Your task to perform on an android device: Open the calendar and show me this week's events? Image 0: 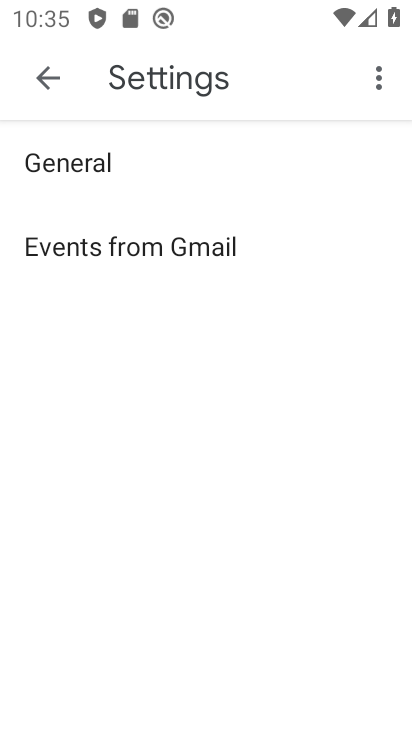
Step 0: press home button
Your task to perform on an android device: Open the calendar and show me this week's events? Image 1: 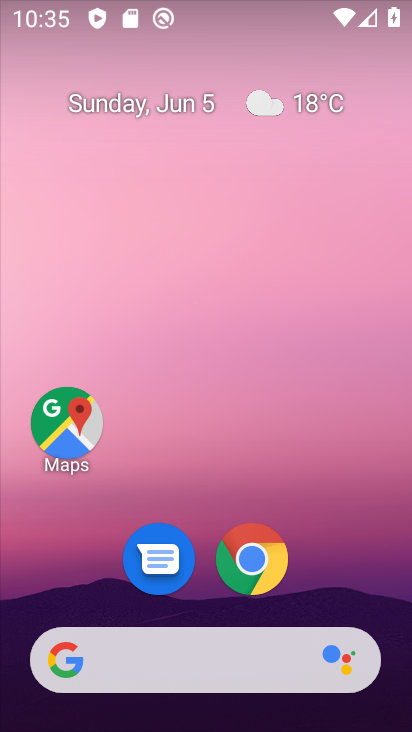
Step 1: drag from (357, 603) to (309, 239)
Your task to perform on an android device: Open the calendar and show me this week's events? Image 2: 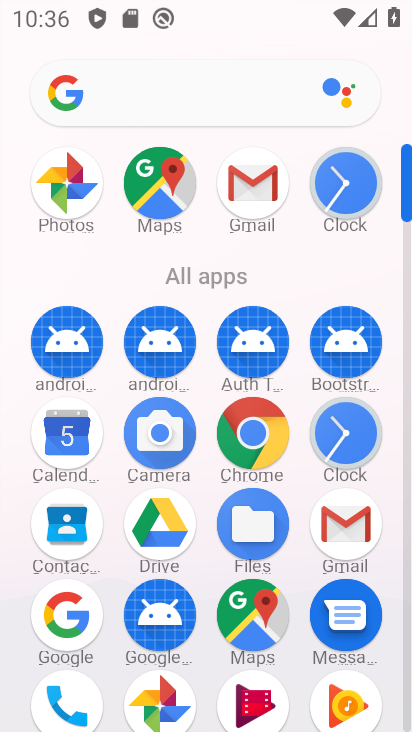
Step 2: click (80, 424)
Your task to perform on an android device: Open the calendar and show me this week's events? Image 3: 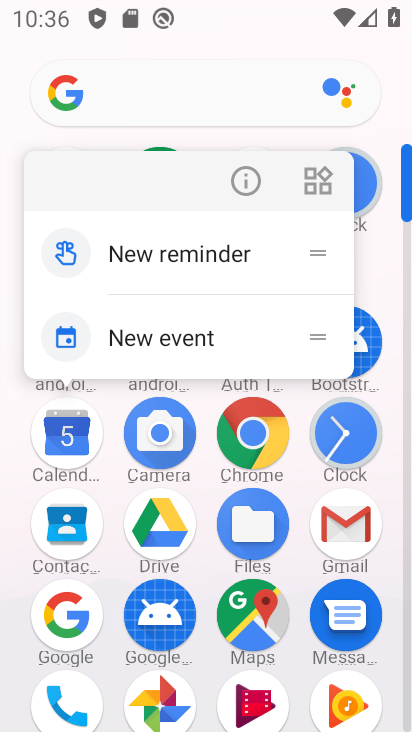
Step 3: click (80, 424)
Your task to perform on an android device: Open the calendar and show me this week's events? Image 4: 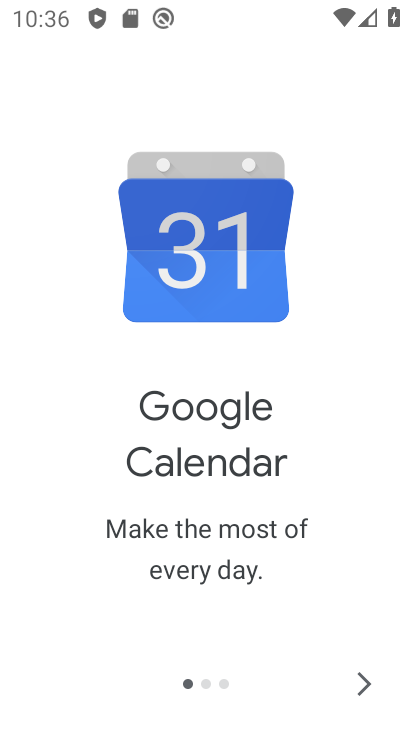
Step 4: click (369, 697)
Your task to perform on an android device: Open the calendar and show me this week's events? Image 5: 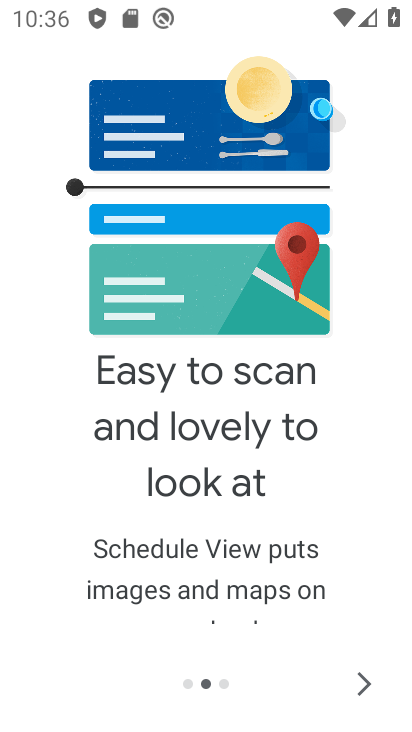
Step 5: click (369, 697)
Your task to perform on an android device: Open the calendar and show me this week's events? Image 6: 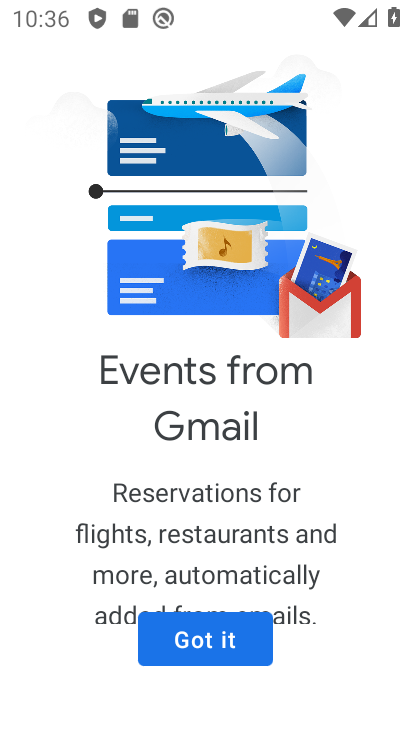
Step 6: click (252, 651)
Your task to perform on an android device: Open the calendar and show me this week's events? Image 7: 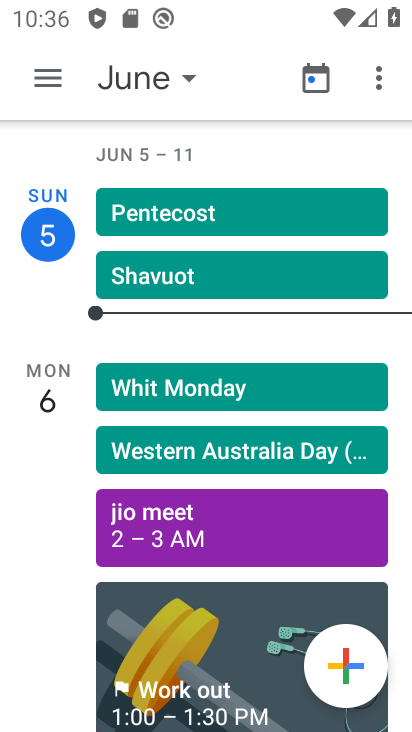
Step 7: click (55, 78)
Your task to perform on an android device: Open the calendar and show me this week's events? Image 8: 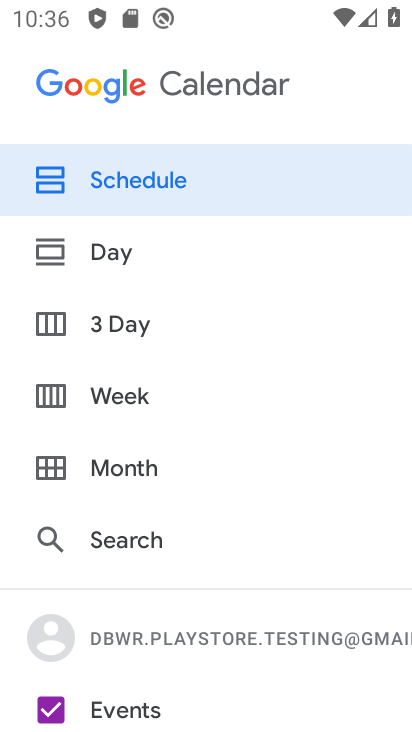
Step 8: drag from (198, 701) to (133, 247)
Your task to perform on an android device: Open the calendar and show me this week's events? Image 9: 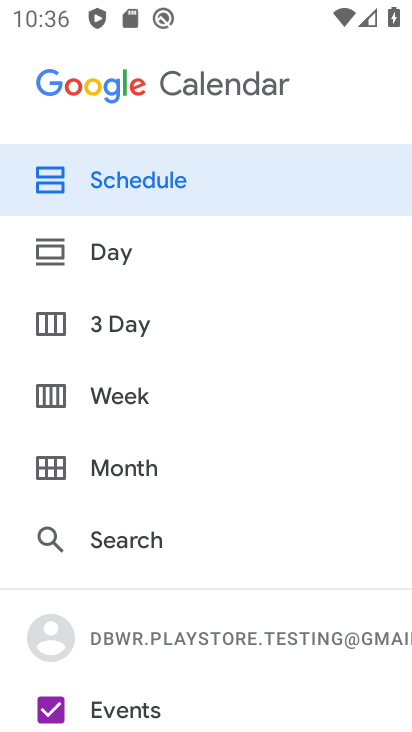
Step 9: drag from (119, 606) to (127, 212)
Your task to perform on an android device: Open the calendar and show me this week's events? Image 10: 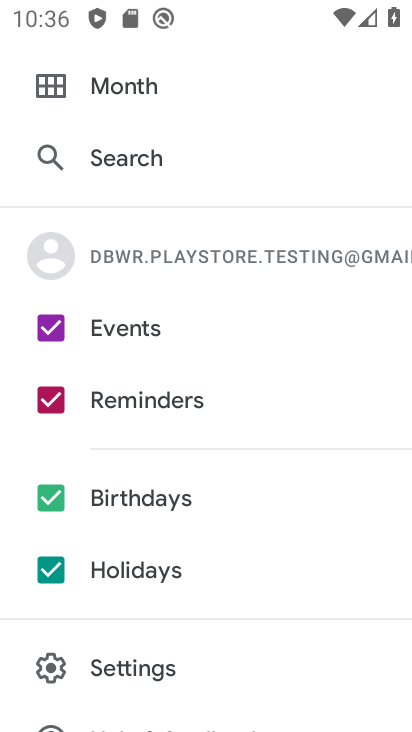
Step 10: click (52, 562)
Your task to perform on an android device: Open the calendar and show me this week's events? Image 11: 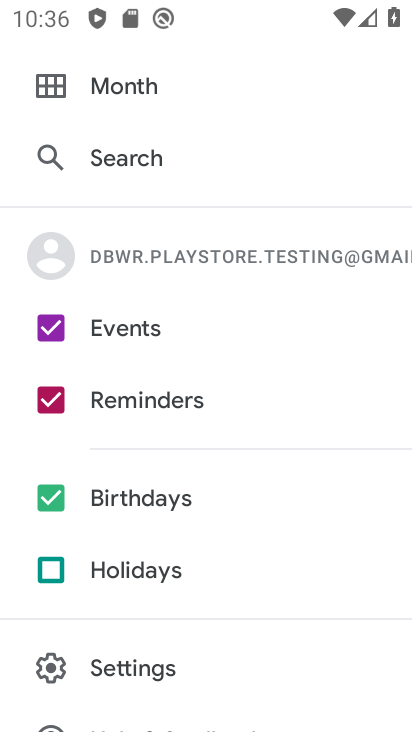
Step 11: click (44, 498)
Your task to perform on an android device: Open the calendar and show me this week's events? Image 12: 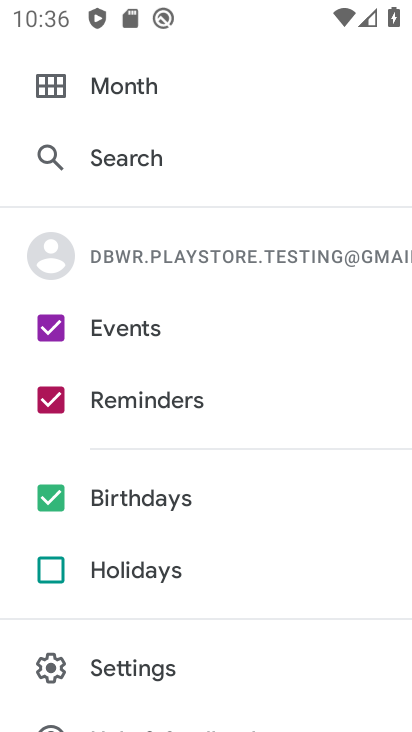
Step 12: click (44, 406)
Your task to perform on an android device: Open the calendar and show me this week's events? Image 13: 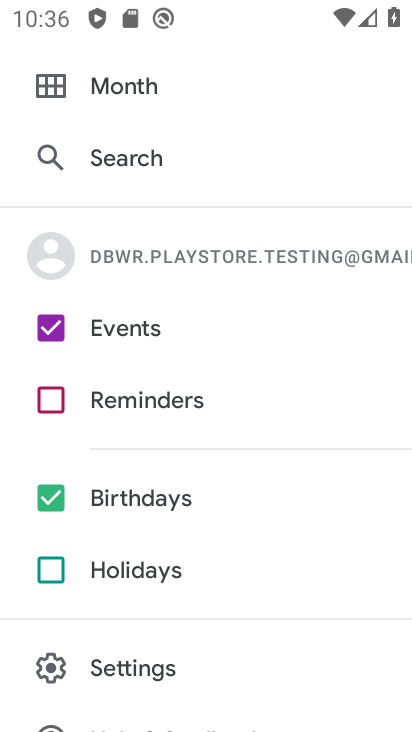
Step 13: click (53, 505)
Your task to perform on an android device: Open the calendar and show me this week's events? Image 14: 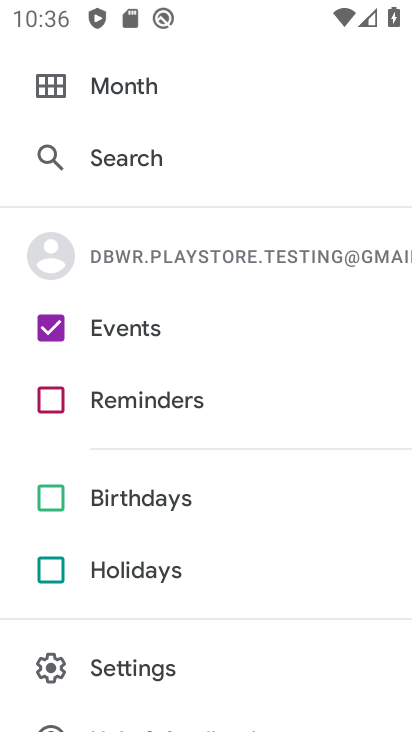
Step 14: drag from (151, 184) to (162, 503)
Your task to perform on an android device: Open the calendar and show me this week's events? Image 15: 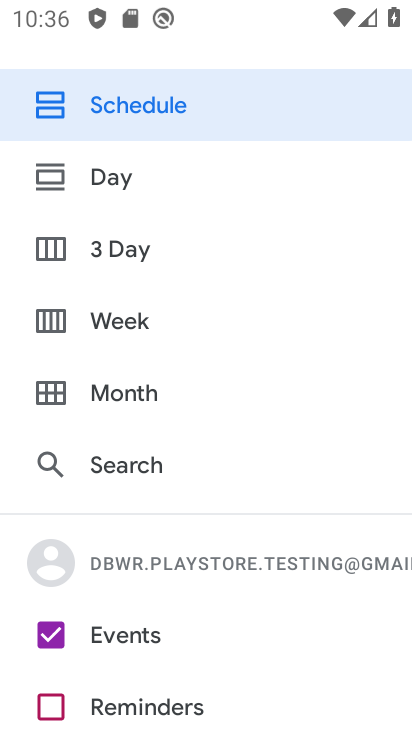
Step 15: click (137, 328)
Your task to perform on an android device: Open the calendar and show me this week's events? Image 16: 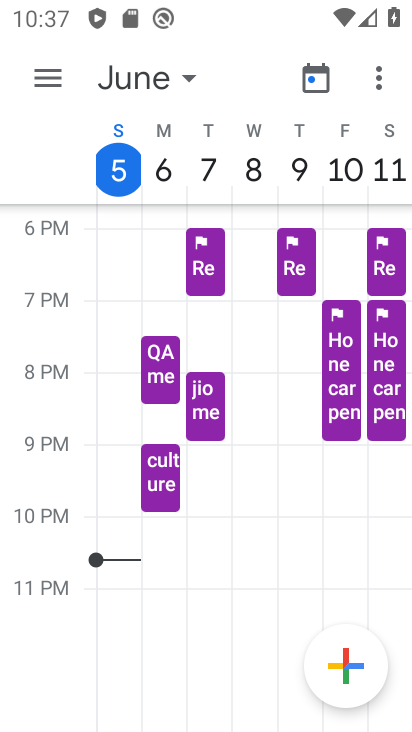
Step 16: task complete